Your task to perform on an android device: turn on improve location accuracy Image 0: 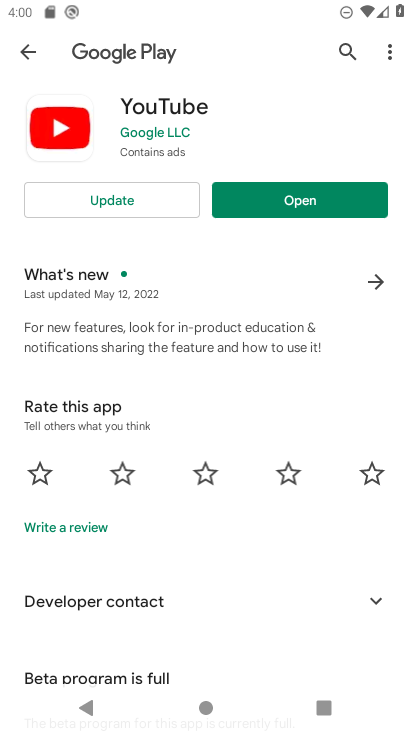
Step 0: press home button
Your task to perform on an android device: turn on improve location accuracy Image 1: 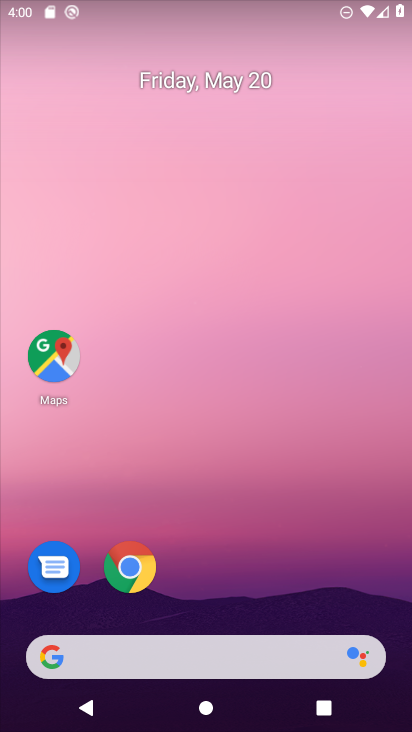
Step 1: drag from (244, 723) to (240, 218)
Your task to perform on an android device: turn on improve location accuracy Image 2: 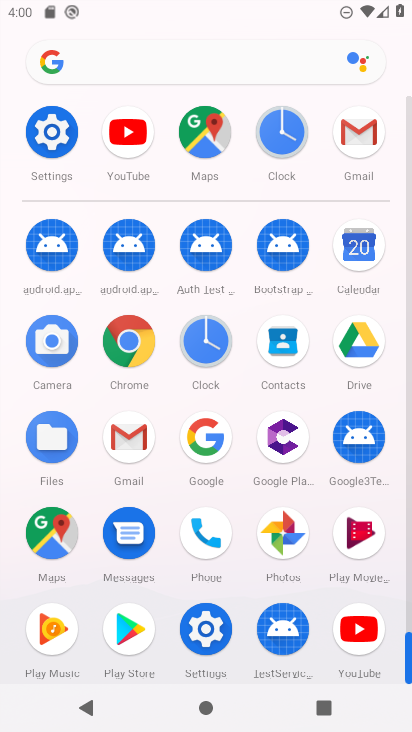
Step 2: click (46, 137)
Your task to perform on an android device: turn on improve location accuracy Image 3: 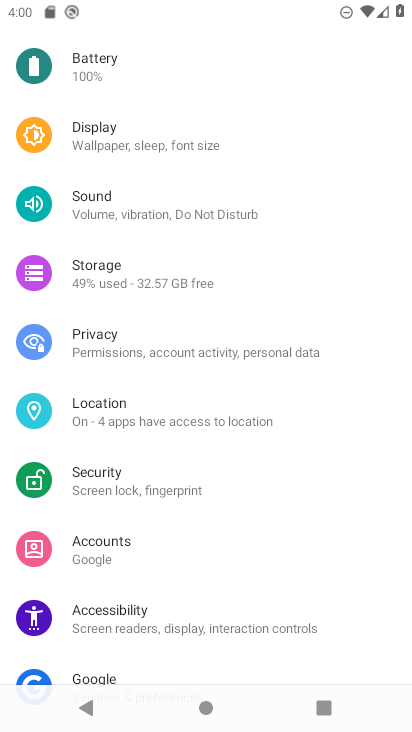
Step 3: click (110, 415)
Your task to perform on an android device: turn on improve location accuracy Image 4: 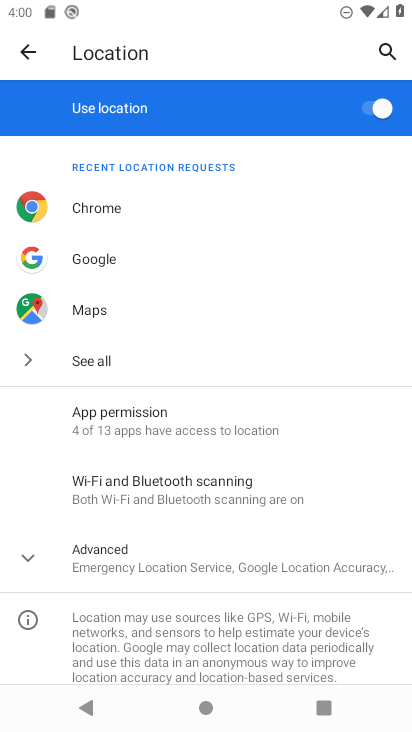
Step 4: click (100, 561)
Your task to perform on an android device: turn on improve location accuracy Image 5: 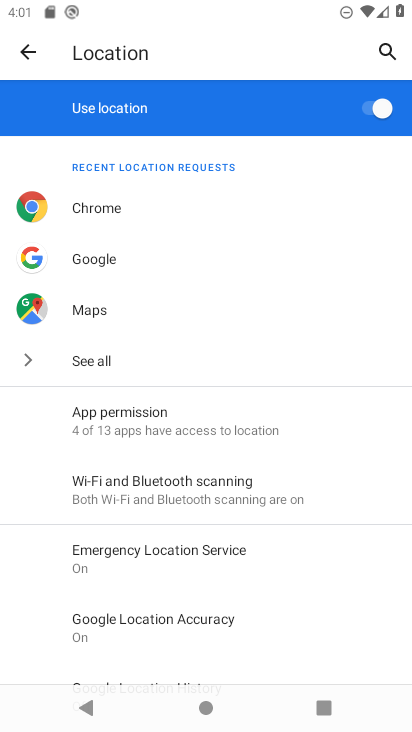
Step 5: click (168, 618)
Your task to perform on an android device: turn on improve location accuracy Image 6: 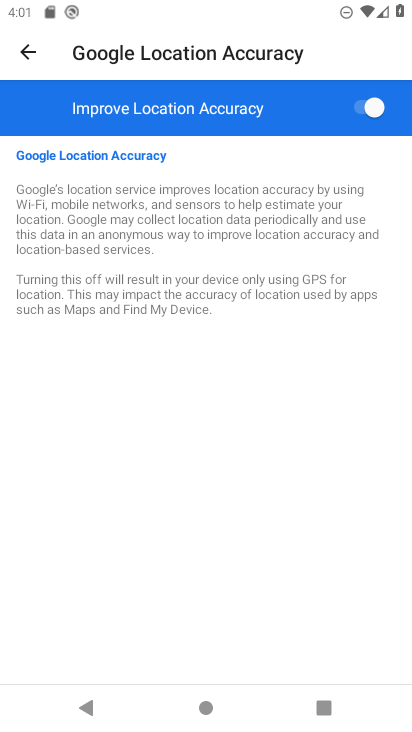
Step 6: task complete